Your task to perform on an android device: Turn off the flashlight Image 0: 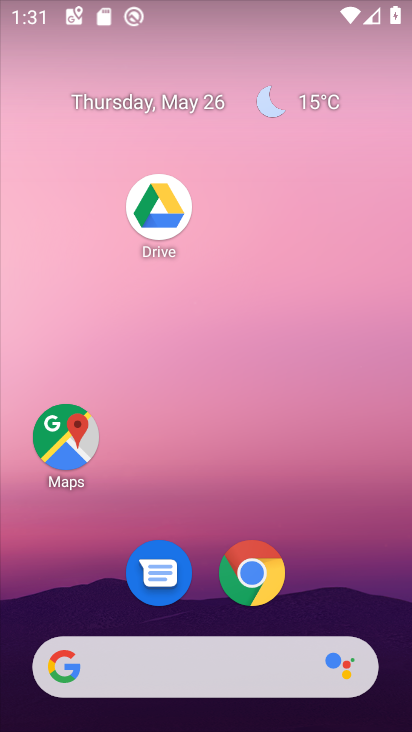
Step 0: drag from (373, 7) to (333, 576)
Your task to perform on an android device: Turn off the flashlight Image 1: 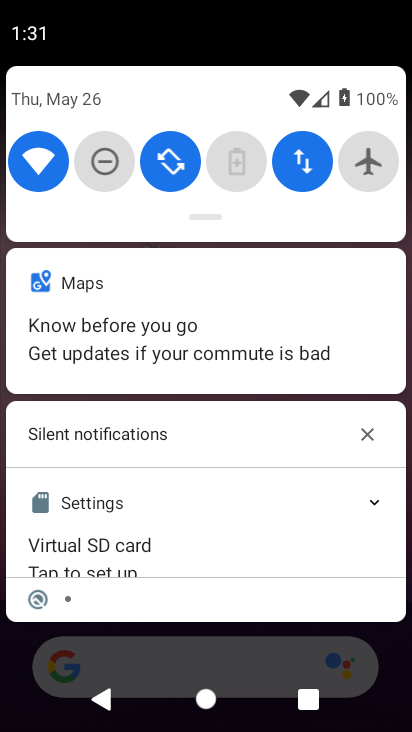
Step 1: drag from (240, 214) to (234, 684)
Your task to perform on an android device: Turn off the flashlight Image 2: 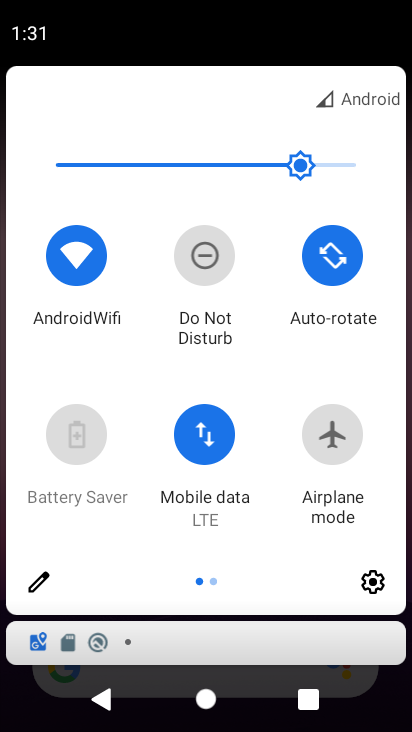
Step 2: click (46, 579)
Your task to perform on an android device: Turn off the flashlight Image 3: 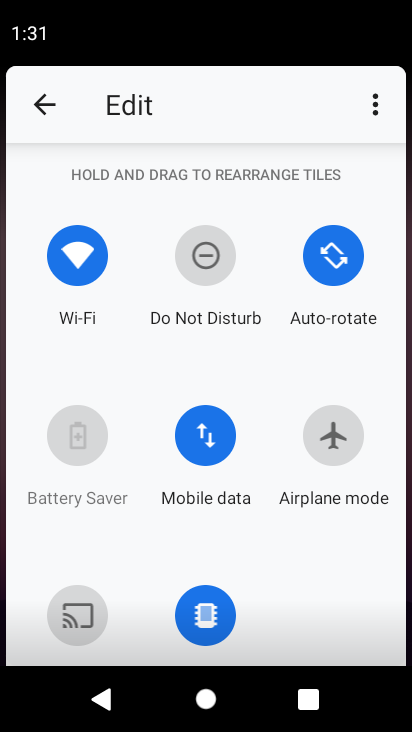
Step 3: drag from (327, 597) to (299, 127)
Your task to perform on an android device: Turn off the flashlight Image 4: 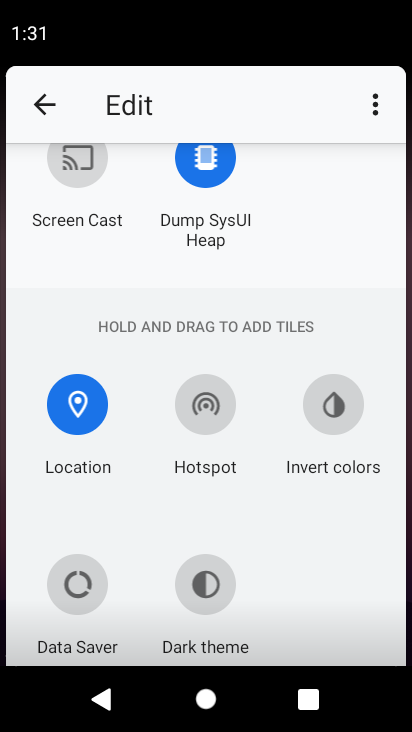
Step 4: drag from (320, 590) to (299, 304)
Your task to perform on an android device: Turn off the flashlight Image 5: 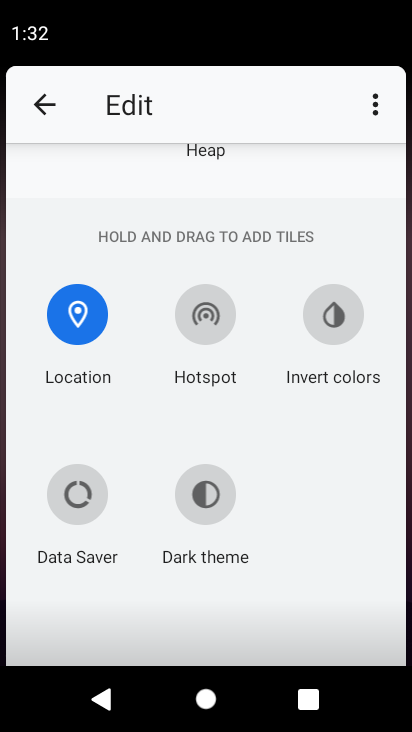
Step 5: press home button
Your task to perform on an android device: Turn off the flashlight Image 6: 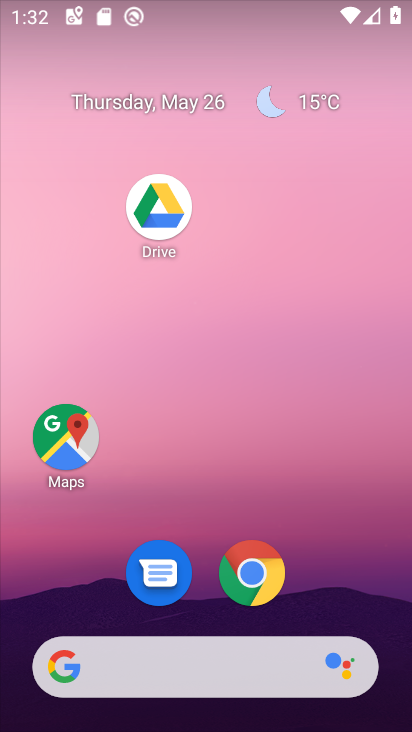
Step 6: drag from (340, 14) to (306, 396)
Your task to perform on an android device: Turn off the flashlight Image 7: 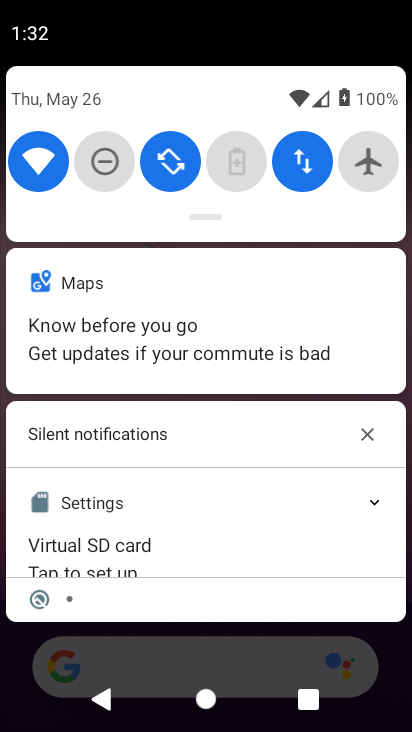
Step 7: drag from (307, 214) to (315, 580)
Your task to perform on an android device: Turn off the flashlight Image 8: 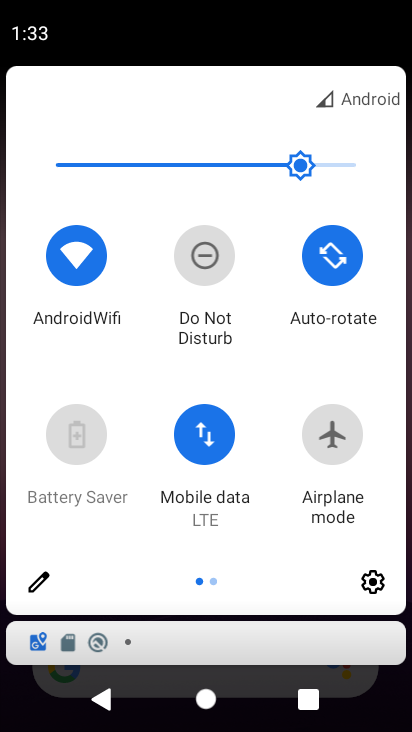
Step 8: click (43, 591)
Your task to perform on an android device: Turn off the flashlight Image 9: 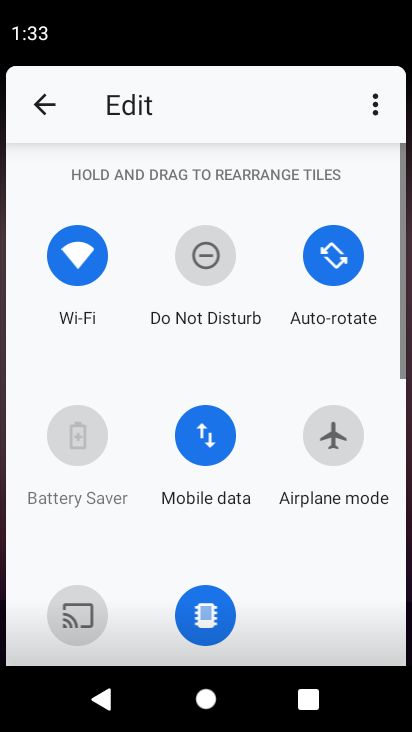
Step 9: task complete